Your task to perform on an android device: turn off notifications in google photos Image 0: 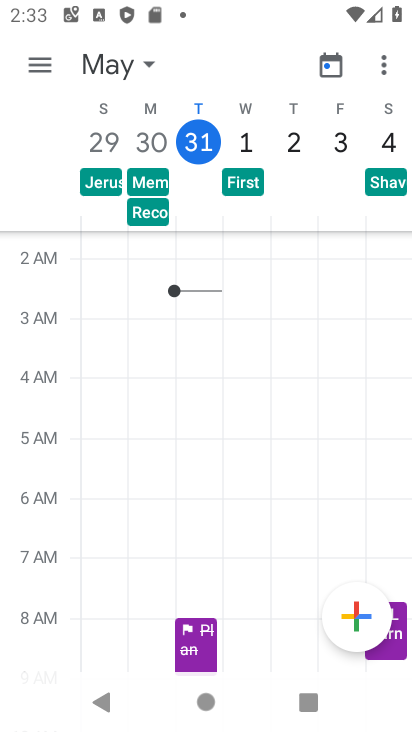
Step 0: press home button
Your task to perform on an android device: turn off notifications in google photos Image 1: 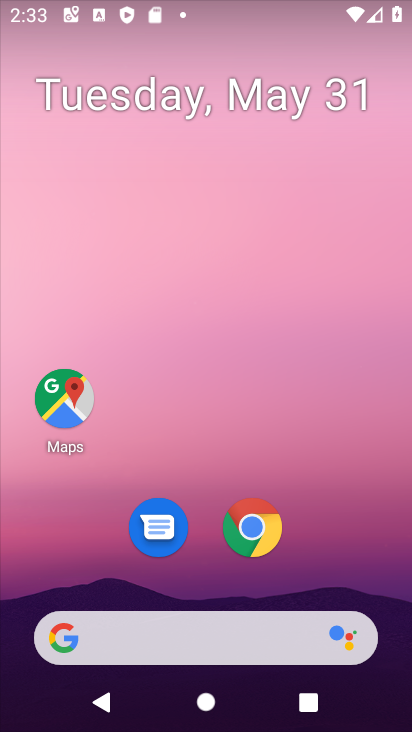
Step 1: drag from (396, 632) to (302, 73)
Your task to perform on an android device: turn off notifications in google photos Image 2: 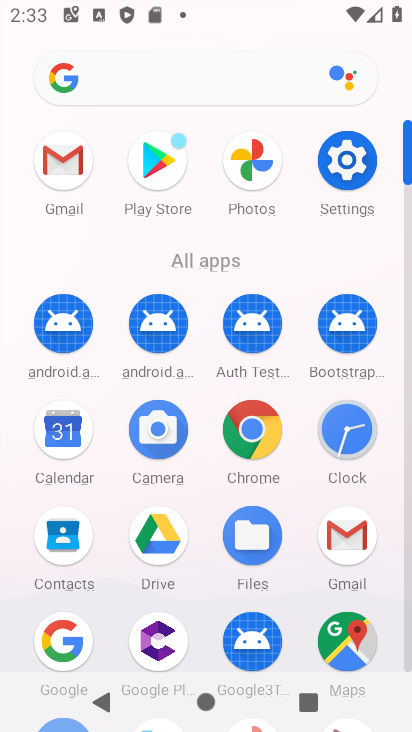
Step 2: click (408, 660)
Your task to perform on an android device: turn off notifications in google photos Image 3: 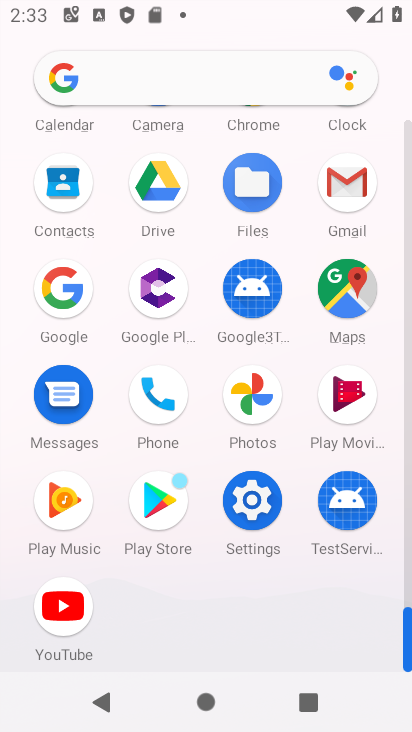
Step 3: click (252, 393)
Your task to perform on an android device: turn off notifications in google photos Image 4: 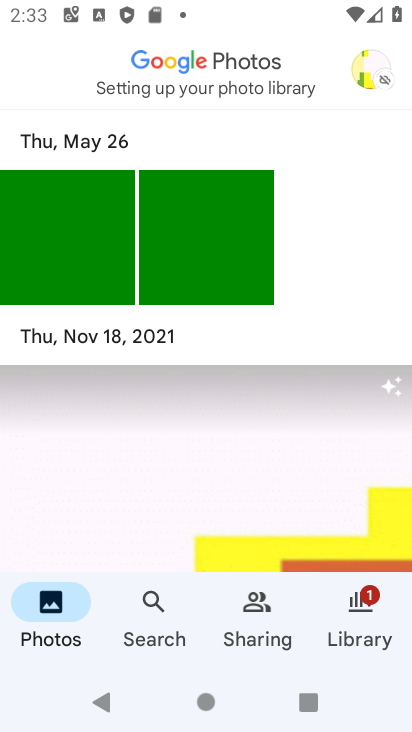
Step 4: click (373, 75)
Your task to perform on an android device: turn off notifications in google photos Image 5: 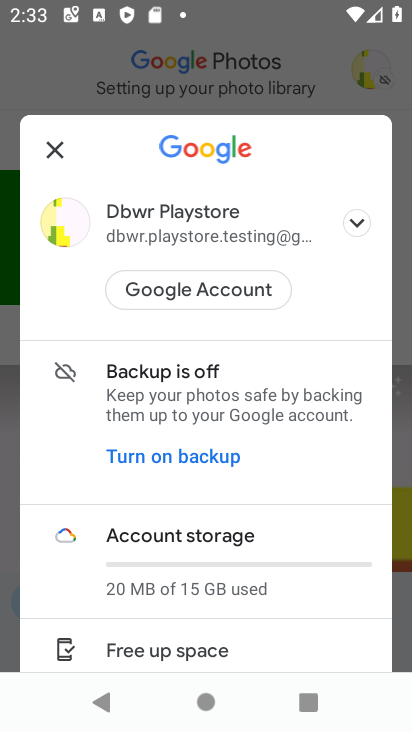
Step 5: drag from (306, 565) to (286, 304)
Your task to perform on an android device: turn off notifications in google photos Image 6: 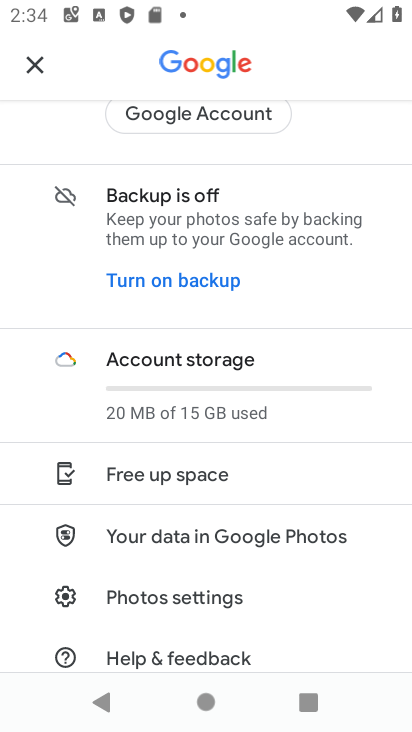
Step 6: click (162, 584)
Your task to perform on an android device: turn off notifications in google photos Image 7: 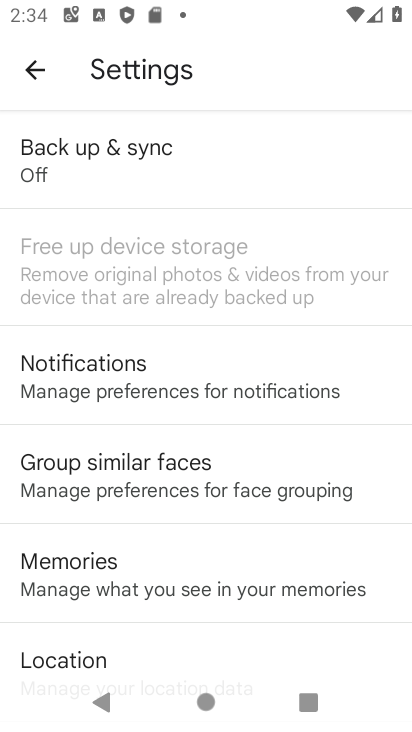
Step 7: click (113, 369)
Your task to perform on an android device: turn off notifications in google photos Image 8: 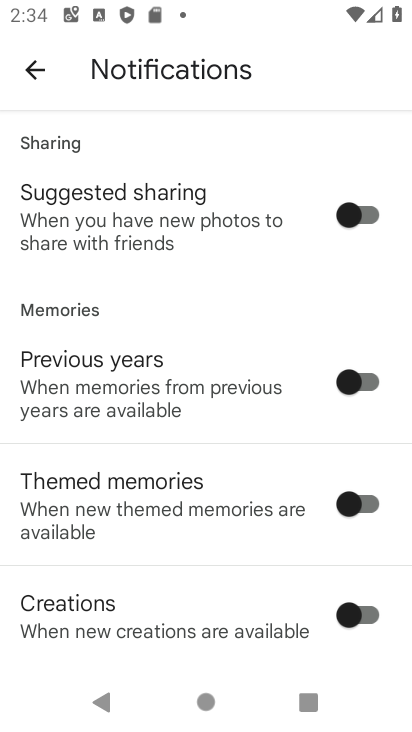
Step 8: drag from (203, 597) to (208, 96)
Your task to perform on an android device: turn off notifications in google photos Image 9: 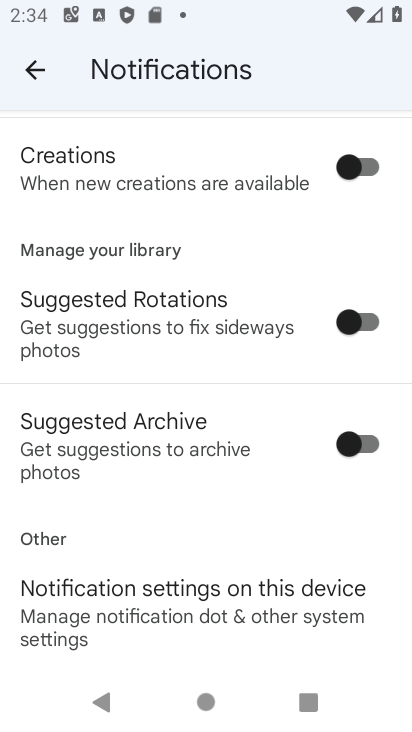
Step 9: drag from (227, 537) to (193, 137)
Your task to perform on an android device: turn off notifications in google photos Image 10: 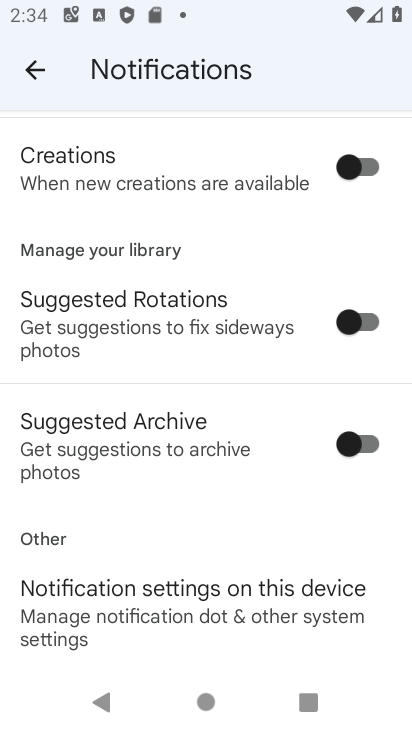
Step 10: drag from (180, 574) to (222, 216)
Your task to perform on an android device: turn off notifications in google photos Image 11: 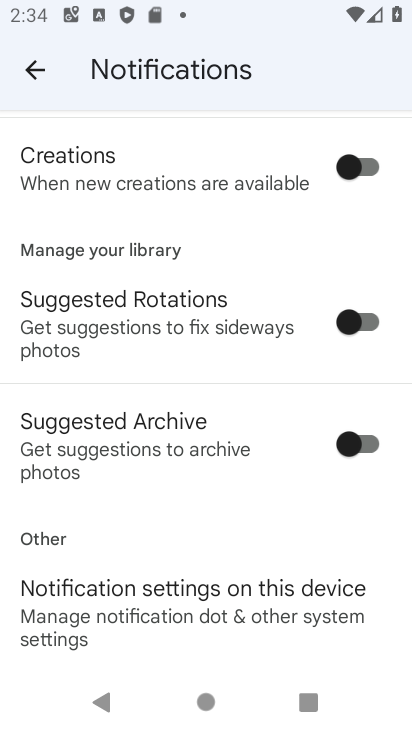
Step 11: click (135, 617)
Your task to perform on an android device: turn off notifications in google photos Image 12: 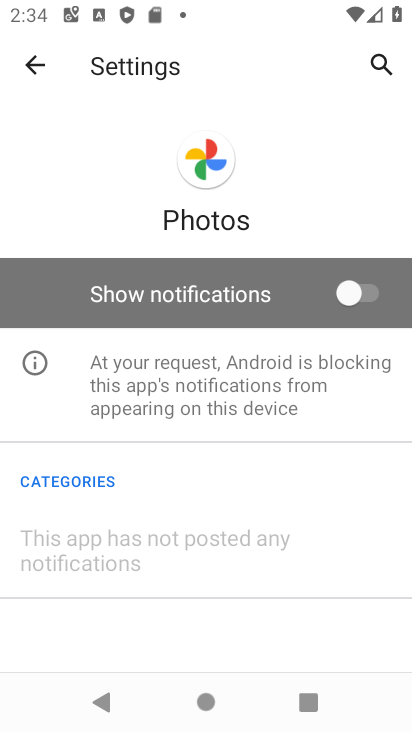
Step 12: task complete